Your task to perform on an android device: Open the stopwatch Image 0: 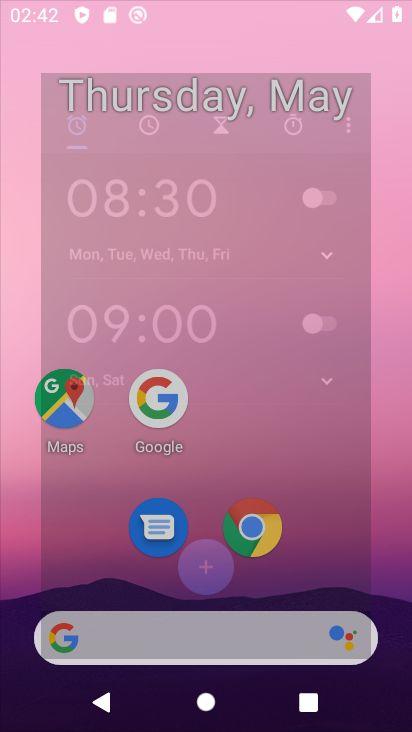
Step 0: drag from (196, 604) to (230, 175)
Your task to perform on an android device: Open the stopwatch Image 1: 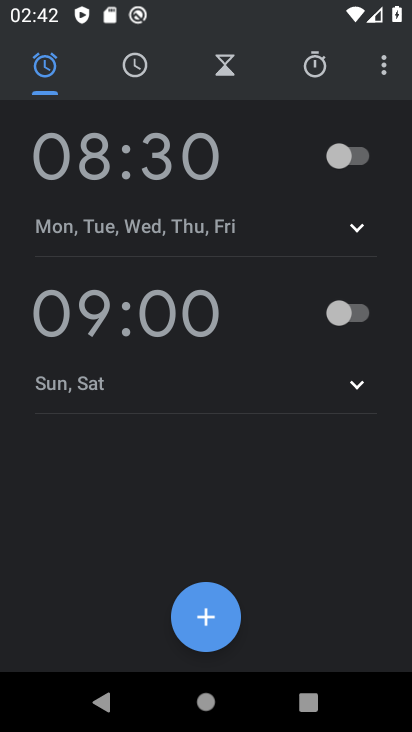
Step 1: press home button
Your task to perform on an android device: Open the stopwatch Image 2: 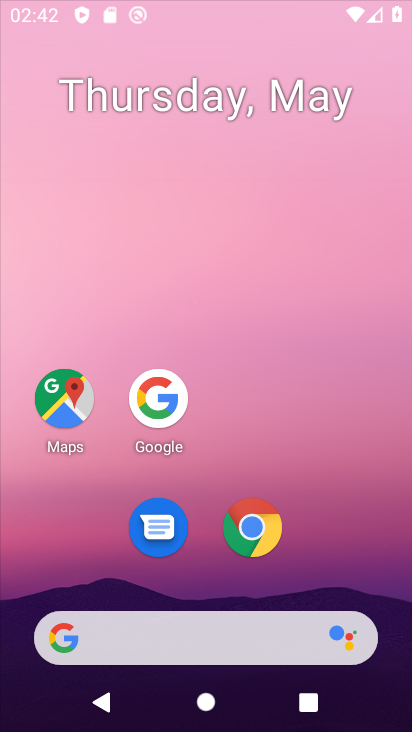
Step 2: drag from (201, 555) to (287, 155)
Your task to perform on an android device: Open the stopwatch Image 3: 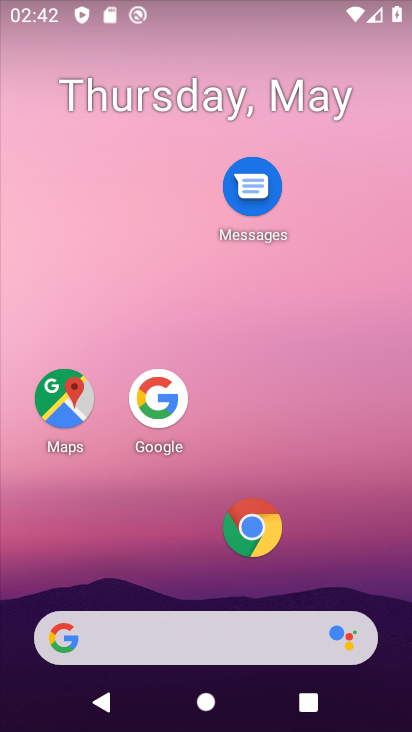
Step 3: drag from (190, 554) to (175, 142)
Your task to perform on an android device: Open the stopwatch Image 4: 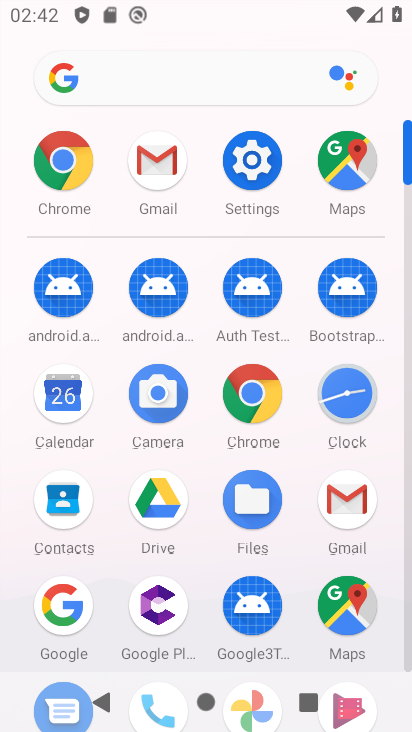
Step 4: click (338, 381)
Your task to perform on an android device: Open the stopwatch Image 5: 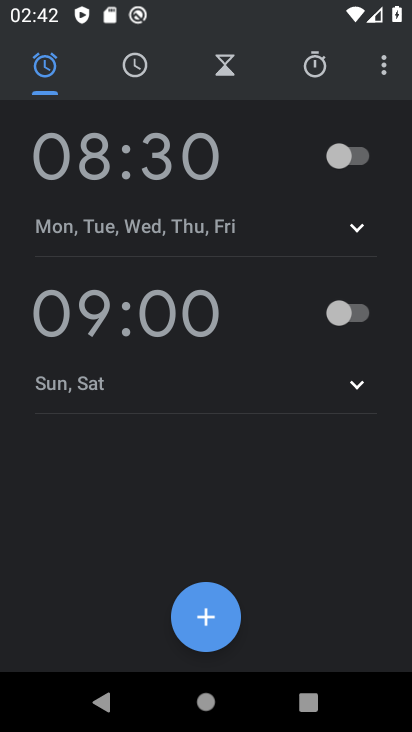
Step 5: click (312, 70)
Your task to perform on an android device: Open the stopwatch Image 6: 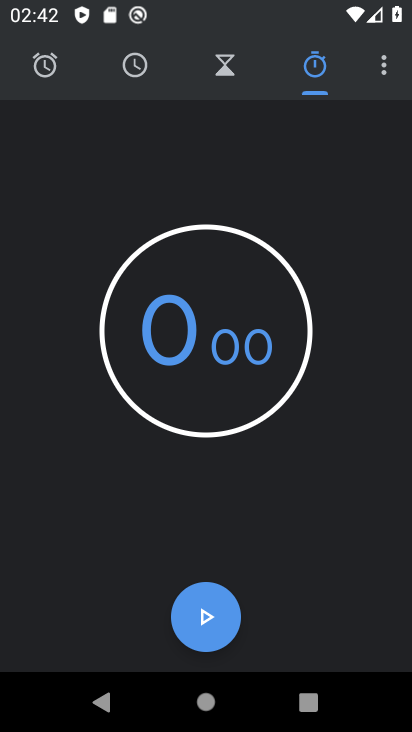
Step 6: click (192, 624)
Your task to perform on an android device: Open the stopwatch Image 7: 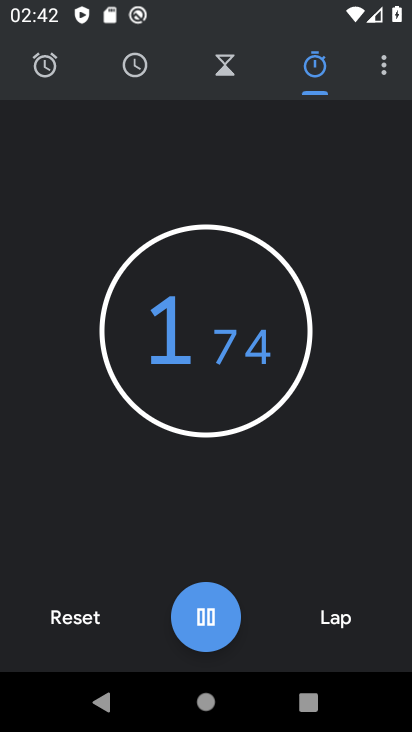
Step 7: task complete